Your task to perform on an android device: see creations saved in the google photos Image 0: 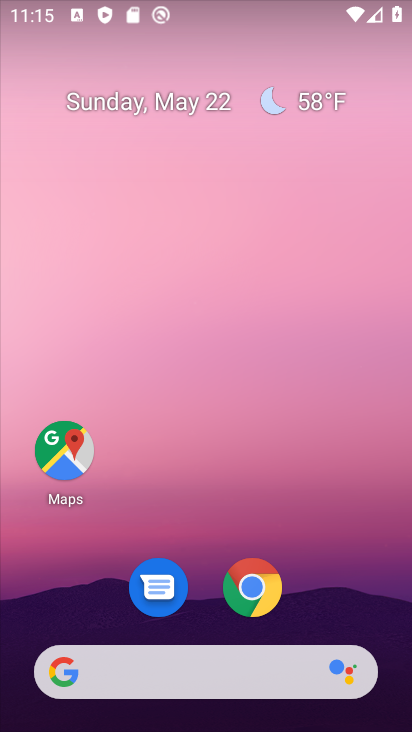
Step 0: drag from (188, 497) to (210, 29)
Your task to perform on an android device: see creations saved in the google photos Image 1: 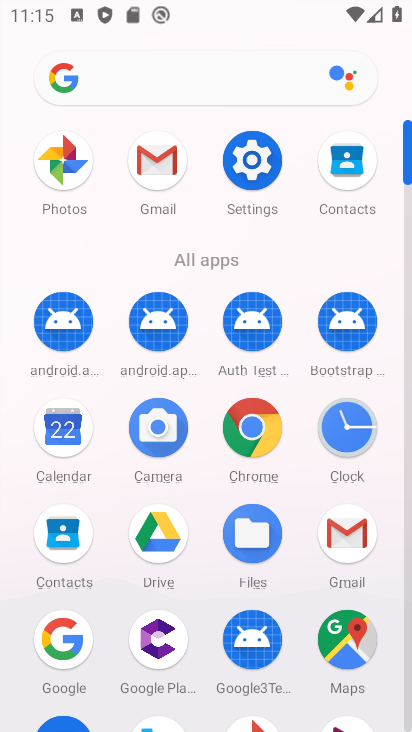
Step 1: click (61, 168)
Your task to perform on an android device: see creations saved in the google photos Image 2: 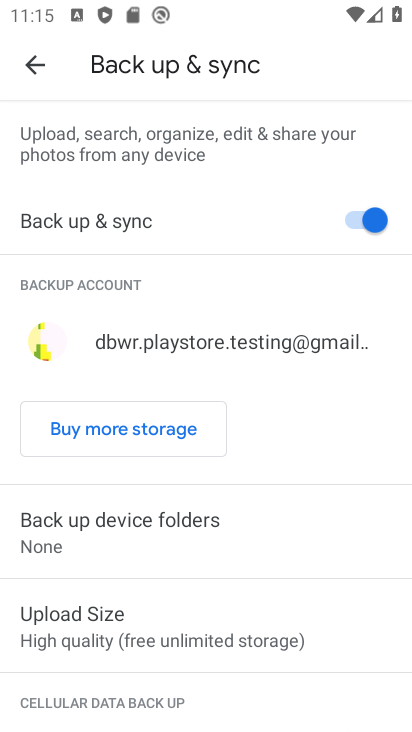
Step 2: click (35, 62)
Your task to perform on an android device: see creations saved in the google photos Image 3: 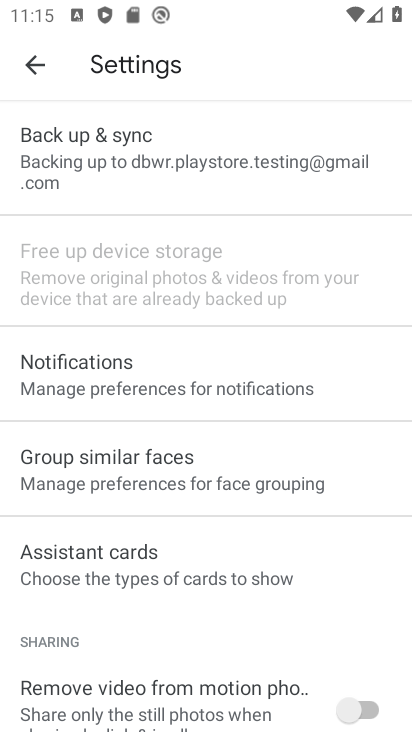
Step 3: click (37, 60)
Your task to perform on an android device: see creations saved in the google photos Image 4: 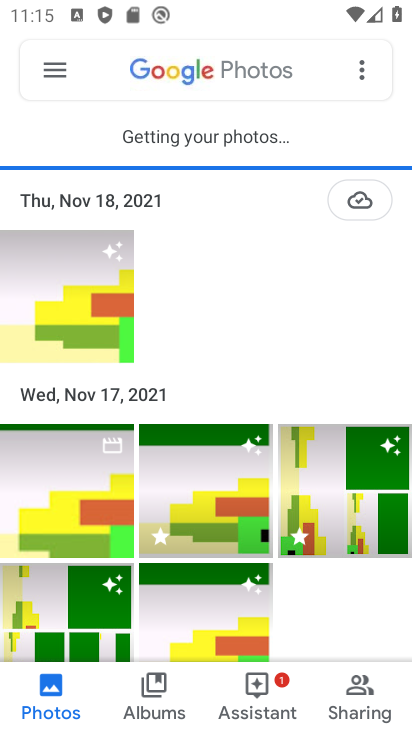
Step 4: click (219, 66)
Your task to perform on an android device: see creations saved in the google photos Image 5: 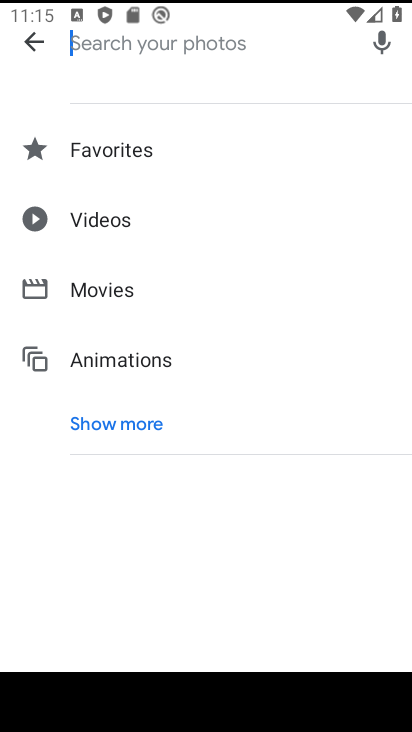
Step 5: click (130, 419)
Your task to perform on an android device: see creations saved in the google photos Image 6: 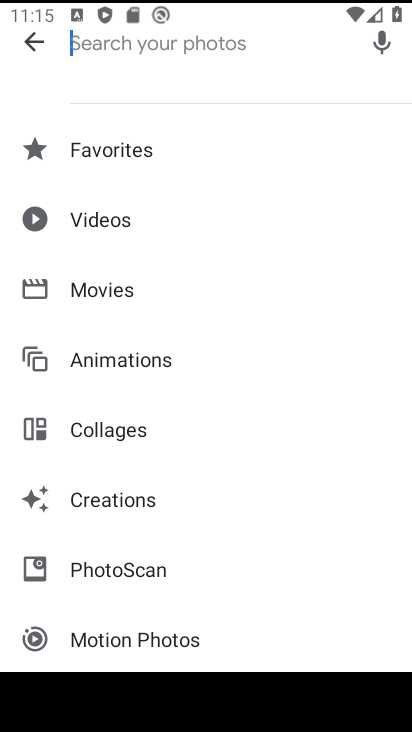
Step 6: click (91, 504)
Your task to perform on an android device: see creations saved in the google photos Image 7: 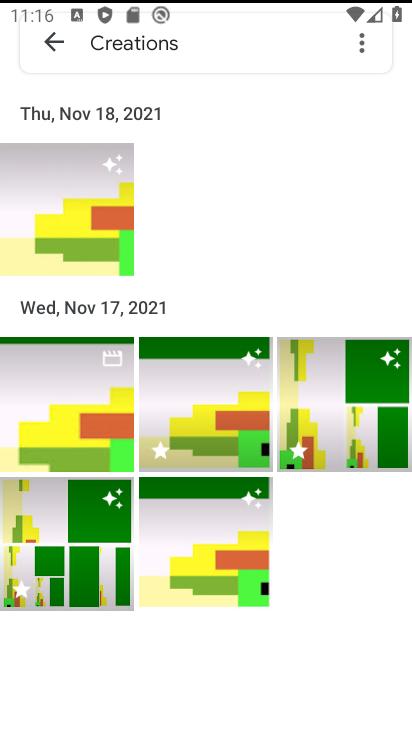
Step 7: task complete